Your task to perform on an android device: Open Yahoo.com Image 0: 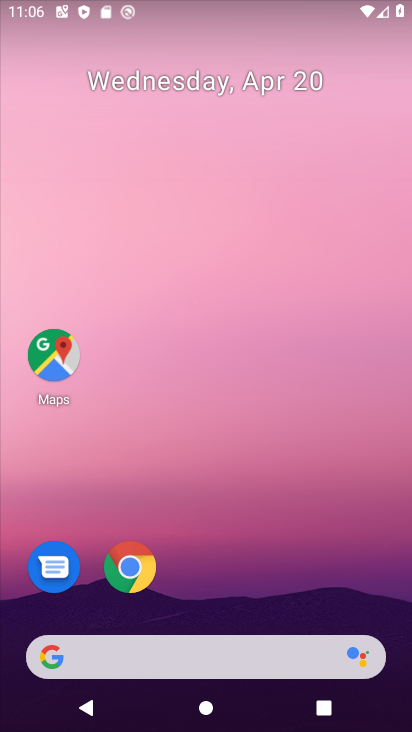
Step 0: drag from (307, 550) to (240, 112)
Your task to perform on an android device: Open Yahoo.com Image 1: 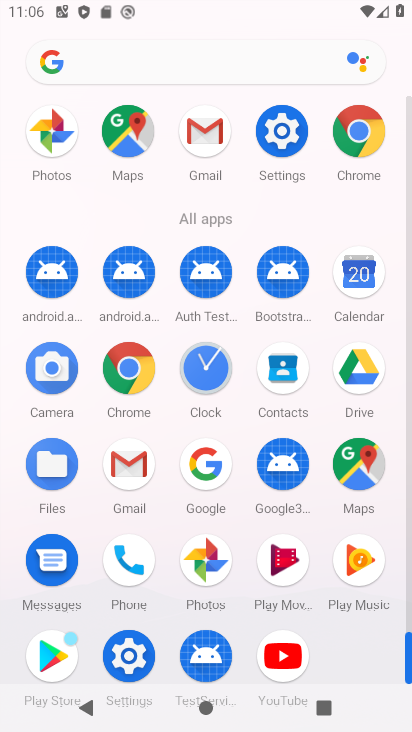
Step 1: click (128, 366)
Your task to perform on an android device: Open Yahoo.com Image 2: 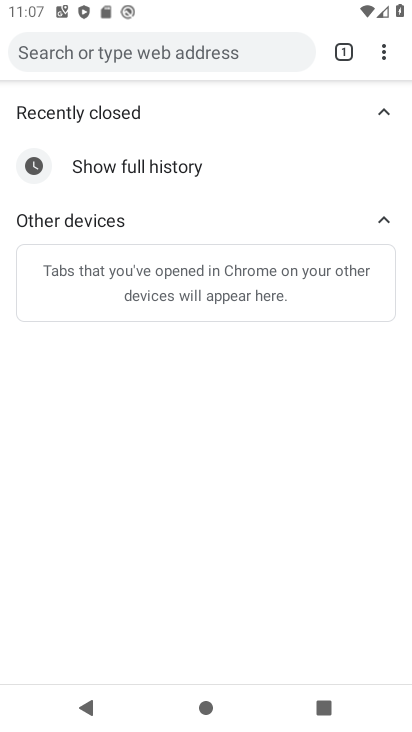
Step 2: click (153, 46)
Your task to perform on an android device: Open Yahoo.com Image 3: 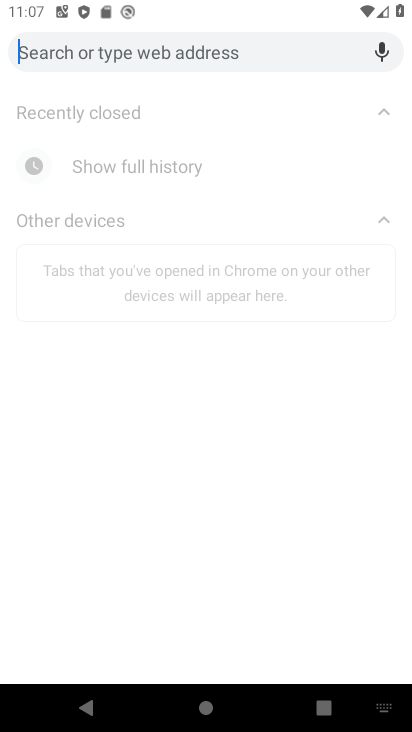
Step 3: type "Yahoo.com"
Your task to perform on an android device: Open Yahoo.com Image 4: 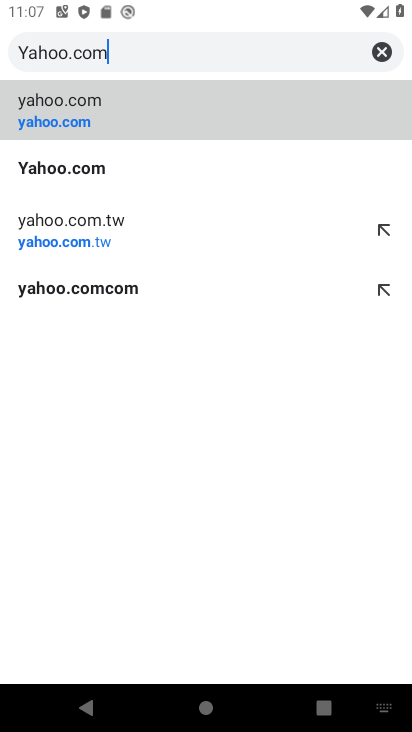
Step 4: type ""
Your task to perform on an android device: Open Yahoo.com Image 5: 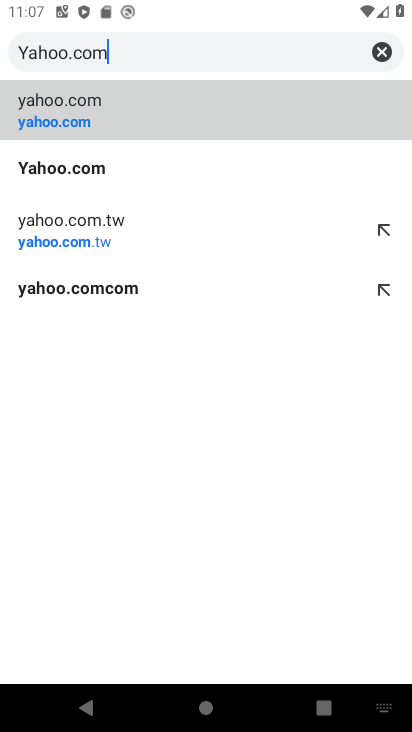
Step 5: click (97, 95)
Your task to perform on an android device: Open Yahoo.com Image 6: 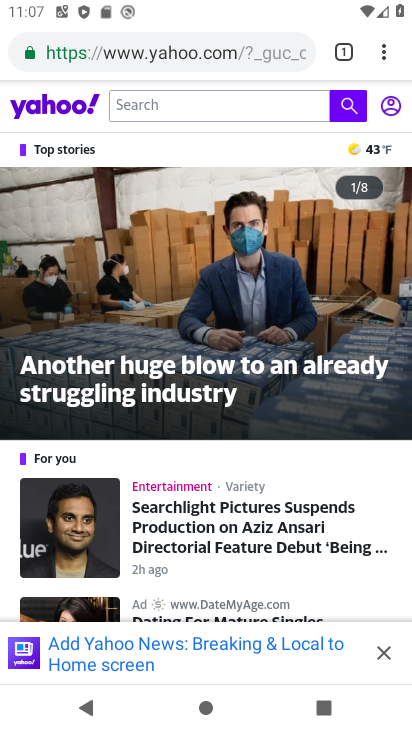
Step 6: task complete